Your task to perform on an android device: Open network settings Image 0: 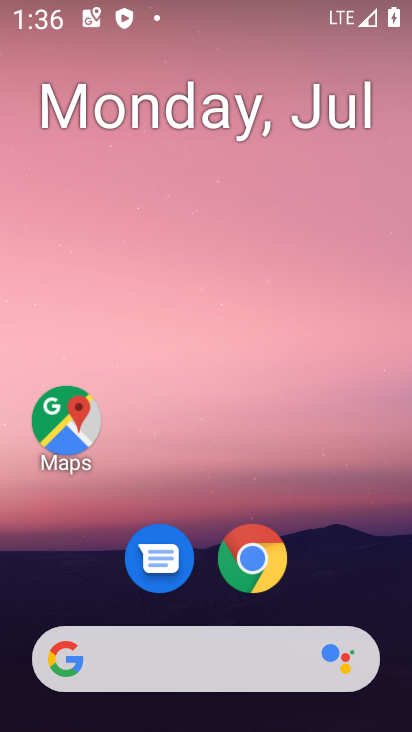
Step 0: drag from (381, 570) to (393, 72)
Your task to perform on an android device: Open network settings Image 1: 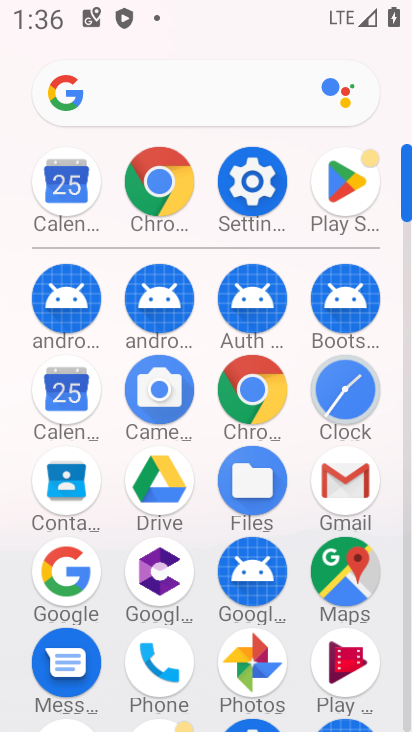
Step 1: click (269, 195)
Your task to perform on an android device: Open network settings Image 2: 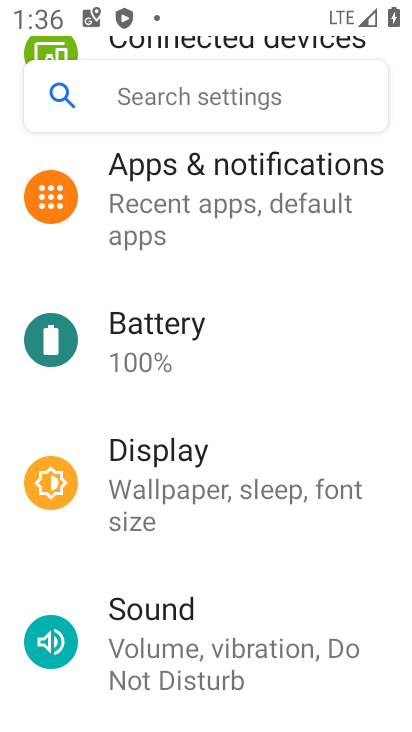
Step 2: drag from (359, 549) to (363, 461)
Your task to perform on an android device: Open network settings Image 3: 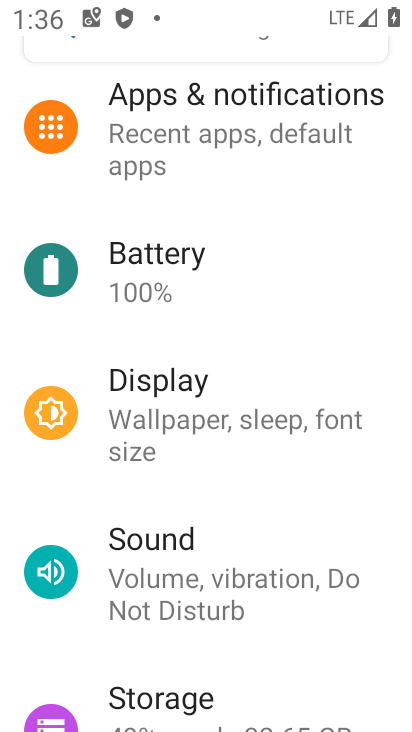
Step 3: drag from (364, 535) to (358, 413)
Your task to perform on an android device: Open network settings Image 4: 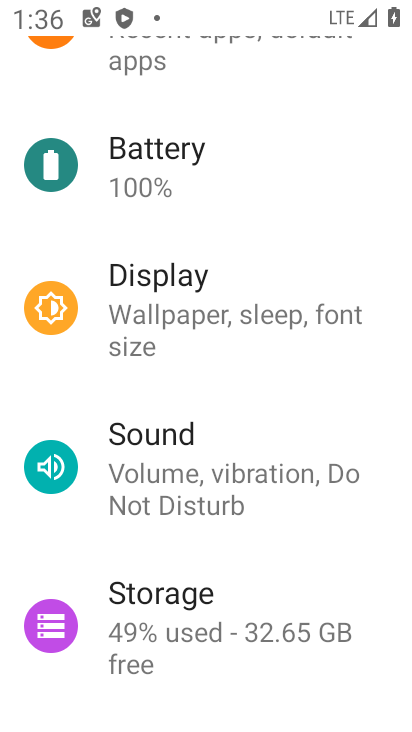
Step 4: drag from (370, 539) to (368, 403)
Your task to perform on an android device: Open network settings Image 5: 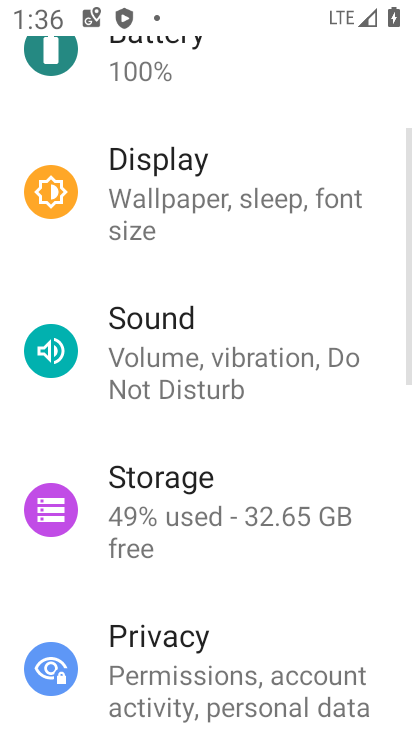
Step 5: drag from (335, 569) to (333, 405)
Your task to perform on an android device: Open network settings Image 6: 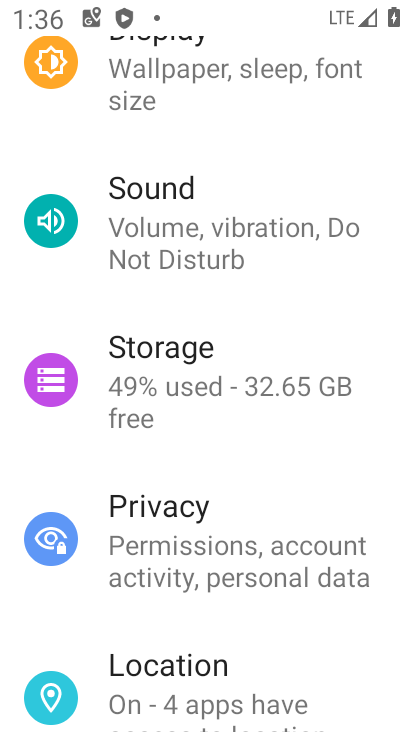
Step 6: drag from (355, 167) to (353, 270)
Your task to perform on an android device: Open network settings Image 7: 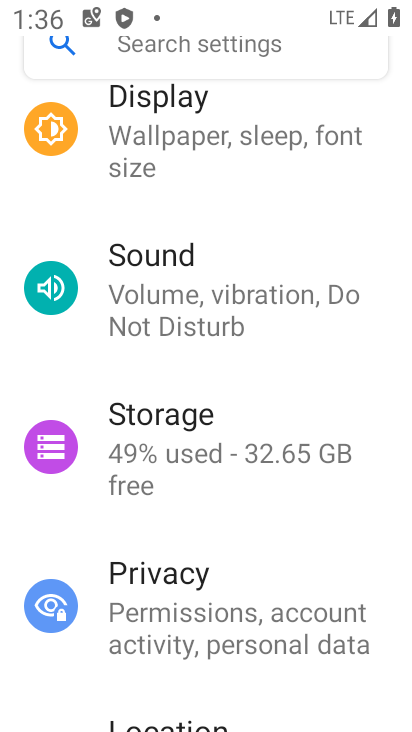
Step 7: drag from (371, 152) to (361, 324)
Your task to perform on an android device: Open network settings Image 8: 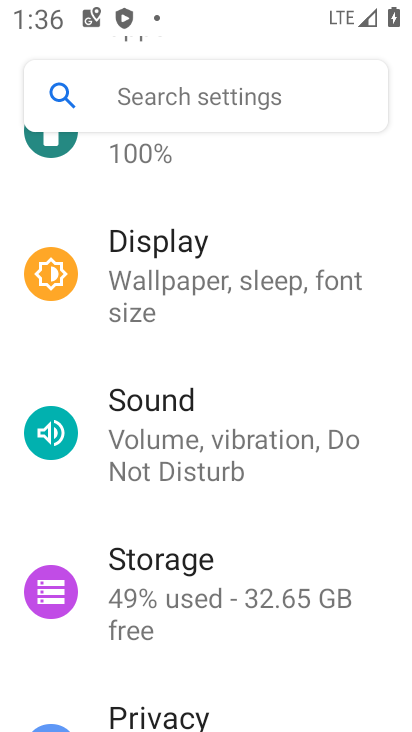
Step 8: drag from (362, 182) to (365, 365)
Your task to perform on an android device: Open network settings Image 9: 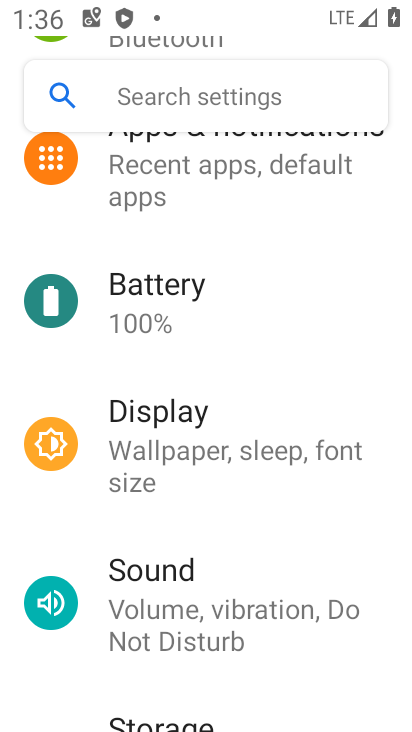
Step 9: drag from (352, 215) to (351, 439)
Your task to perform on an android device: Open network settings Image 10: 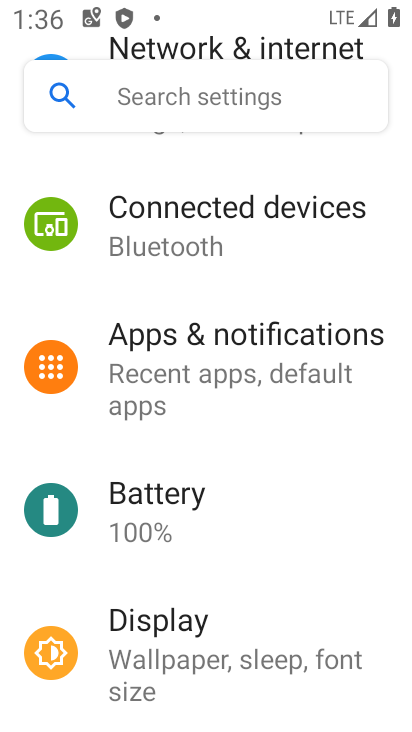
Step 10: drag from (355, 155) to (355, 355)
Your task to perform on an android device: Open network settings Image 11: 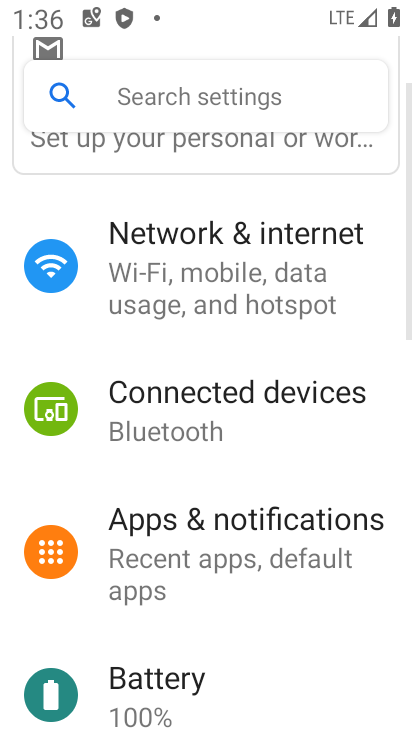
Step 11: click (298, 270)
Your task to perform on an android device: Open network settings Image 12: 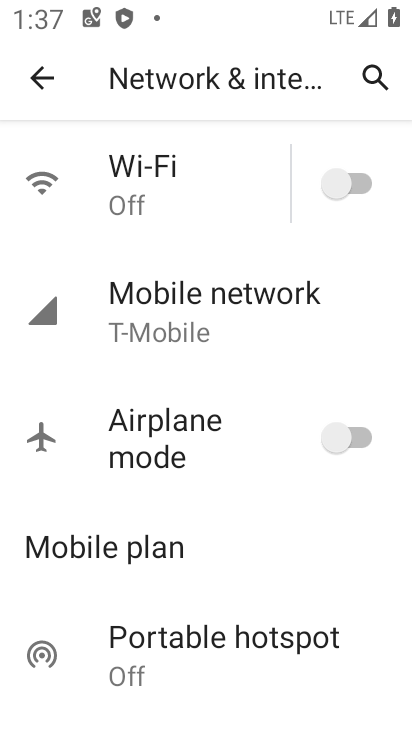
Step 12: task complete